Your task to perform on an android device: Open Google Image 0: 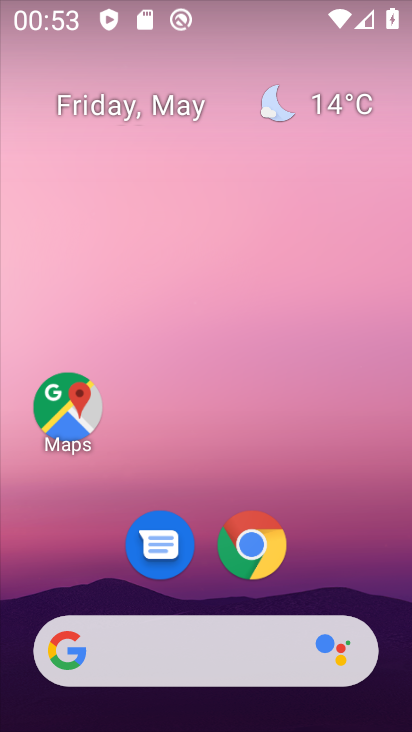
Step 0: click (195, 666)
Your task to perform on an android device: Open Google Image 1: 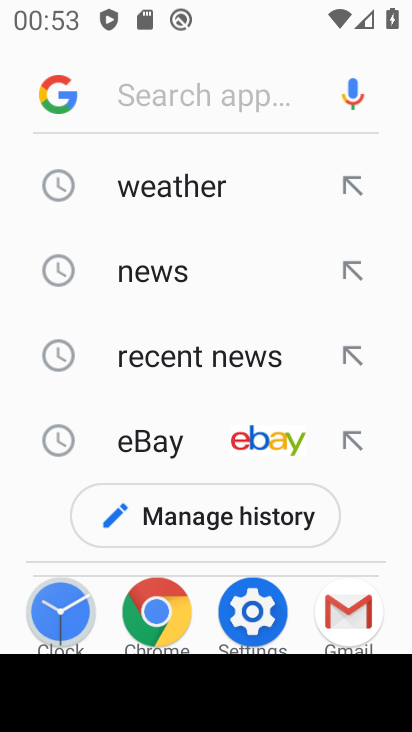
Step 1: task complete